Your task to perform on an android device: delete a single message in the gmail app Image 0: 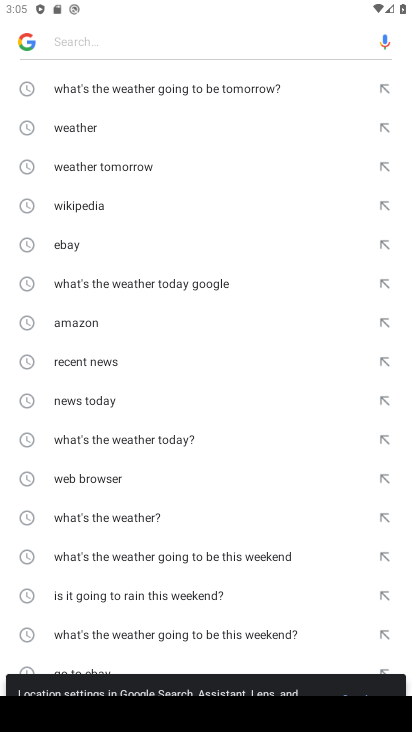
Step 0: press home button
Your task to perform on an android device: delete a single message in the gmail app Image 1: 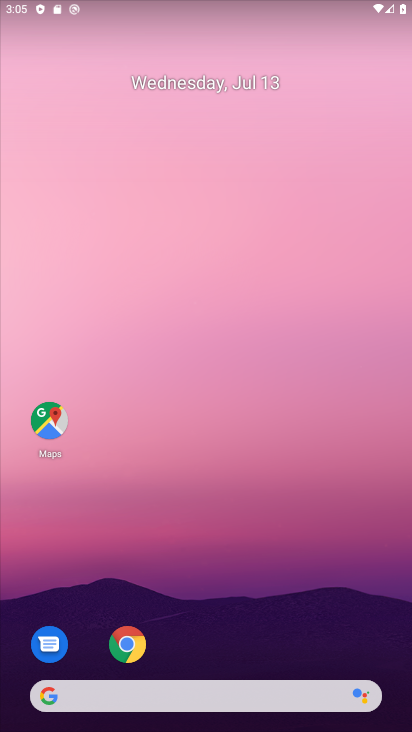
Step 1: drag from (256, 640) to (152, 172)
Your task to perform on an android device: delete a single message in the gmail app Image 2: 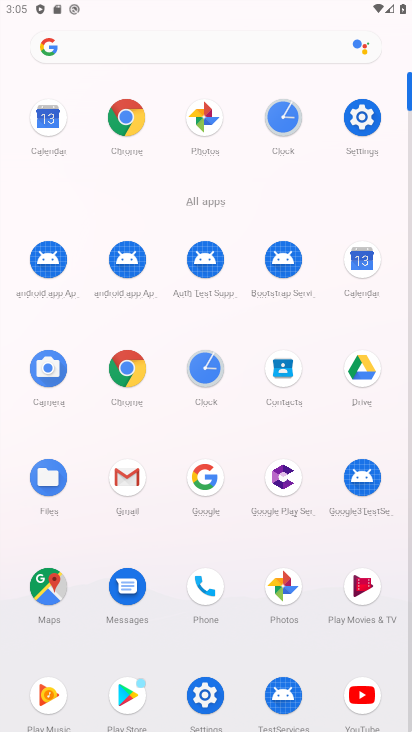
Step 2: click (129, 470)
Your task to perform on an android device: delete a single message in the gmail app Image 3: 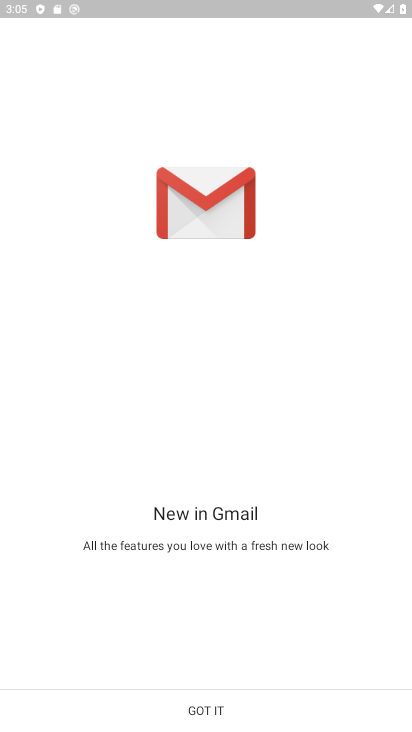
Step 3: click (222, 717)
Your task to perform on an android device: delete a single message in the gmail app Image 4: 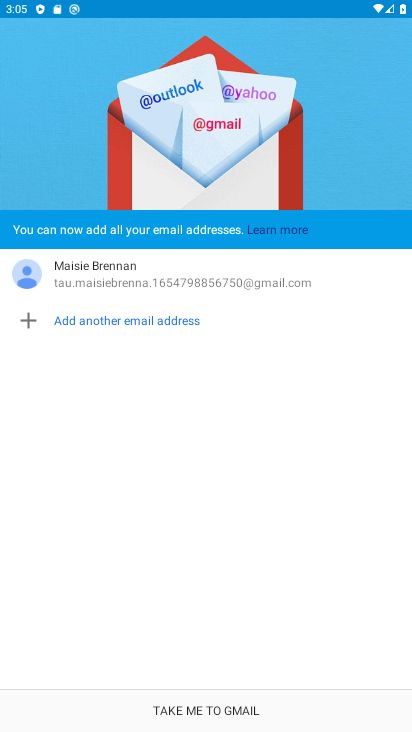
Step 4: click (227, 711)
Your task to perform on an android device: delete a single message in the gmail app Image 5: 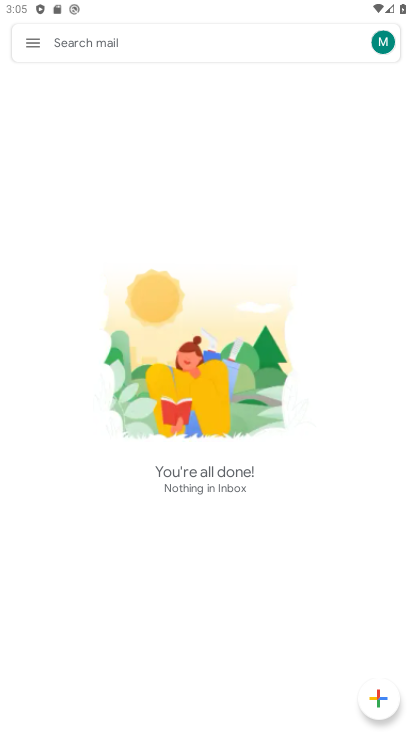
Step 5: task complete